Your task to perform on an android device: open chrome and create a bookmark for the current page Image 0: 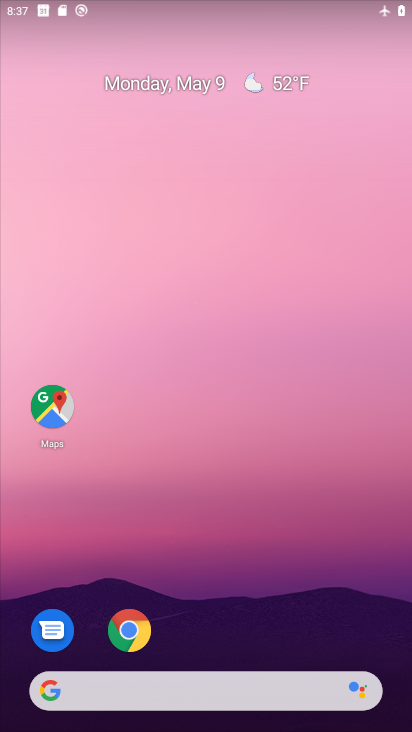
Step 0: click (136, 625)
Your task to perform on an android device: open chrome and create a bookmark for the current page Image 1: 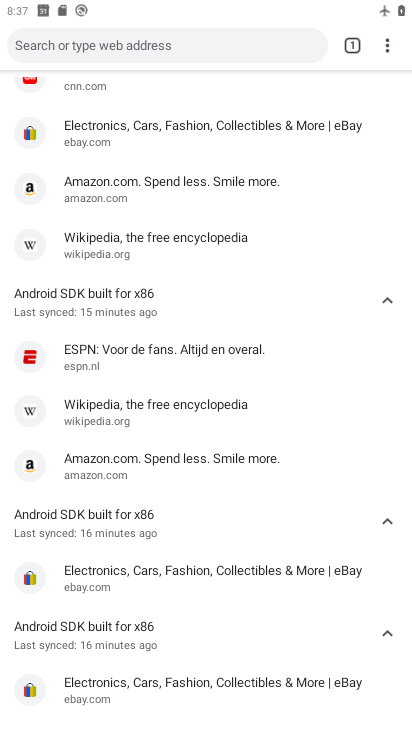
Step 1: click (350, 44)
Your task to perform on an android device: open chrome and create a bookmark for the current page Image 2: 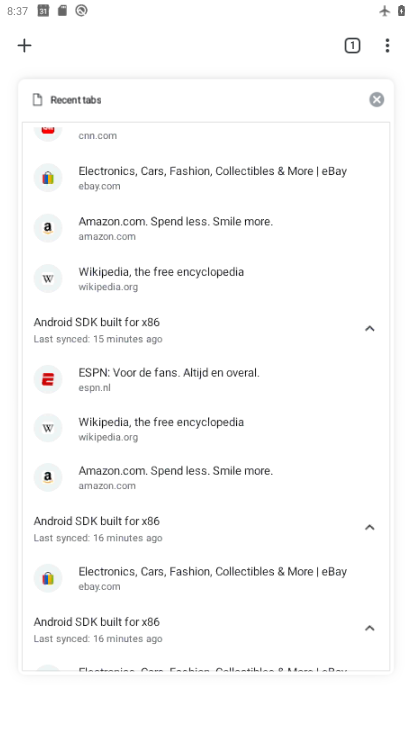
Step 2: click (28, 42)
Your task to perform on an android device: open chrome and create a bookmark for the current page Image 3: 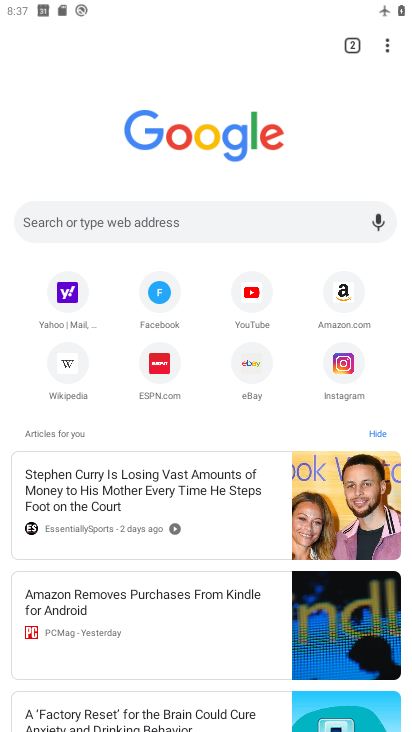
Step 3: drag from (299, 8) to (308, 721)
Your task to perform on an android device: open chrome and create a bookmark for the current page Image 4: 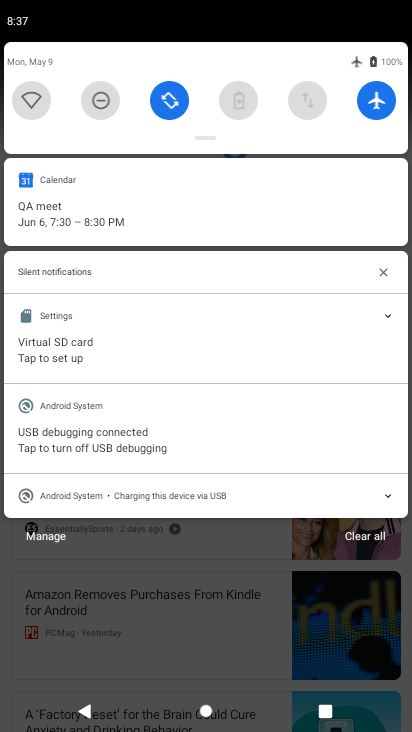
Step 4: click (385, 97)
Your task to perform on an android device: open chrome and create a bookmark for the current page Image 5: 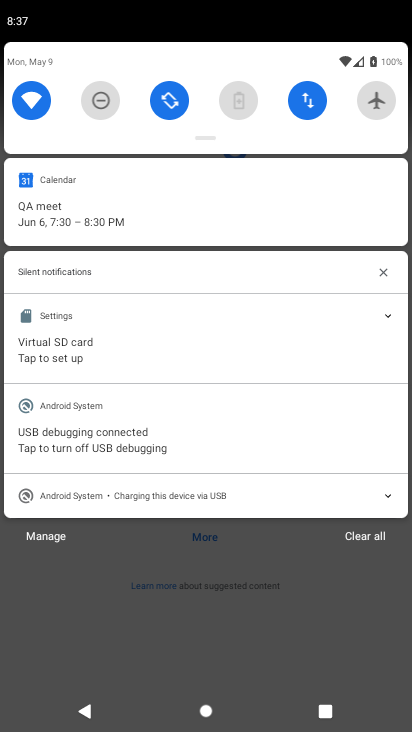
Step 5: drag from (213, 626) to (305, 95)
Your task to perform on an android device: open chrome and create a bookmark for the current page Image 6: 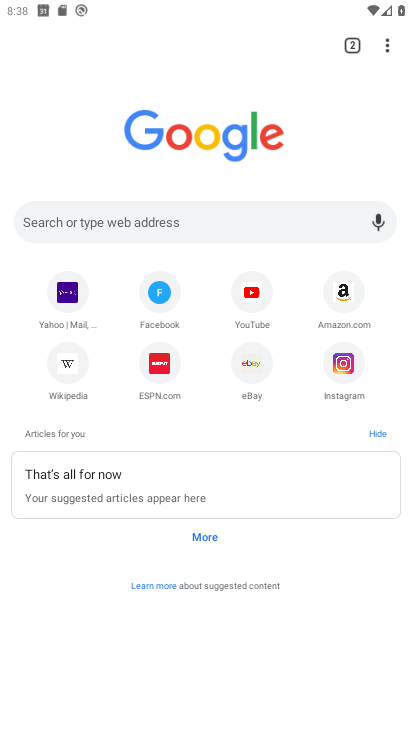
Step 6: click (389, 43)
Your task to perform on an android device: open chrome and create a bookmark for the current page Image 7: 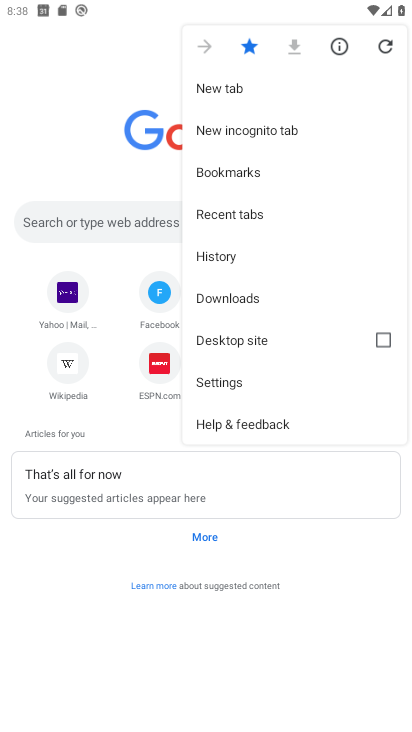
Step 7: task complete